Your task to perform on an android device: toggle translation in the chrome app Image 0: 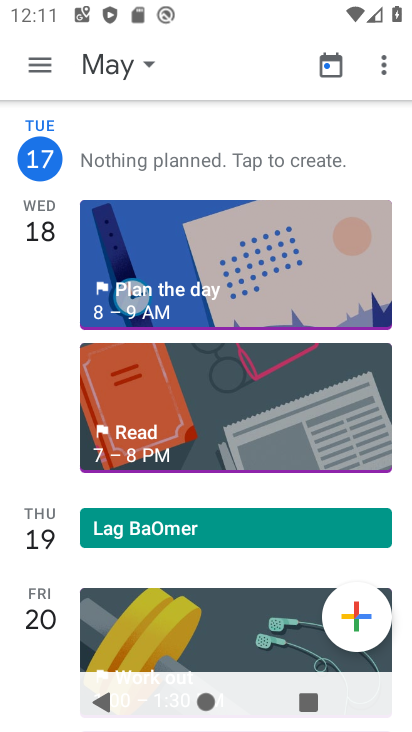
Step 0: press home button
Your task to perform on an android device: toggle translation in the chrome app Image 1: 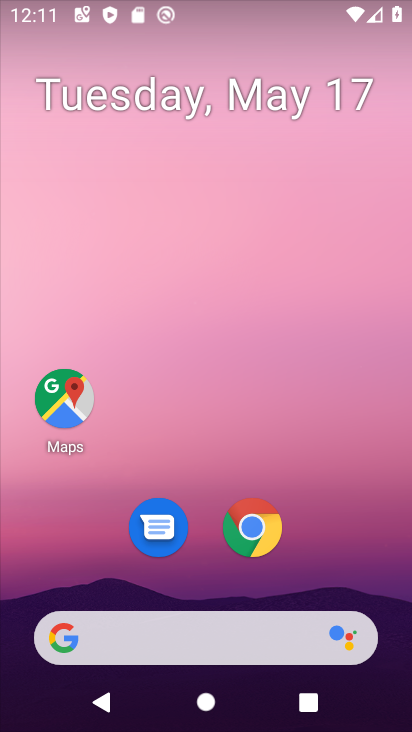
Step 1: drag from (379, 564) to (292, 172)
Your task to perform on an android device: toggle translation in the chrome app Image 2: 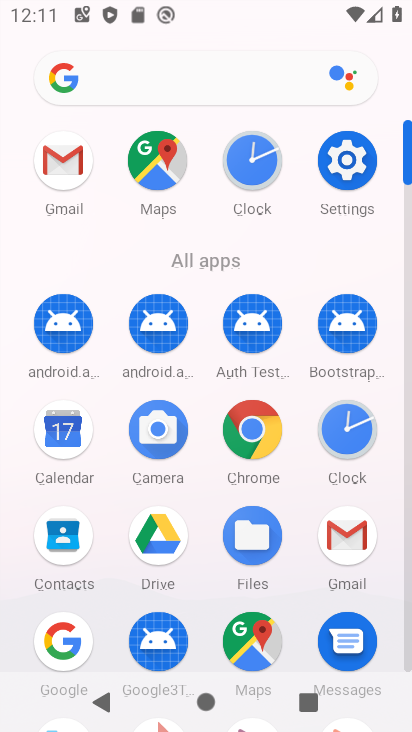
Step 2: click (265, 437)
Your task to perform on an android device: toggle translation in the chrome app Image 3: 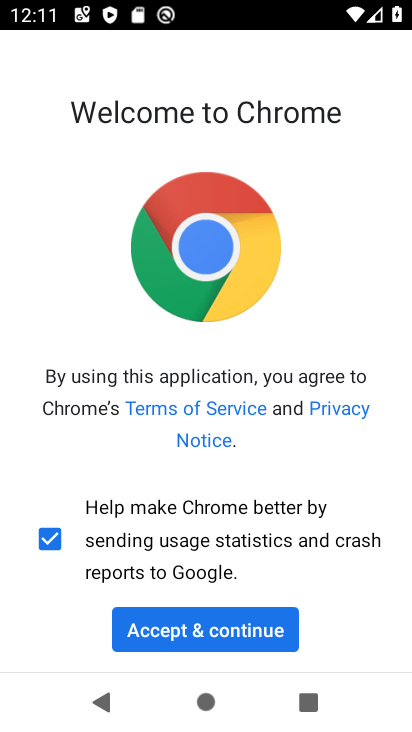
Step 3: click (182, 637)
Your task to perform on an android device: toggle translation in the chrome app Image 4: 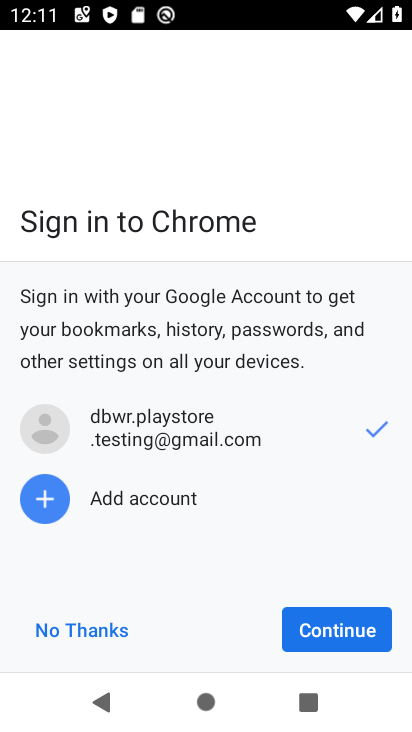
Step 4: click (344, 645)
Your task to perform on an android device: toggle translation in the chrome app Image 5: 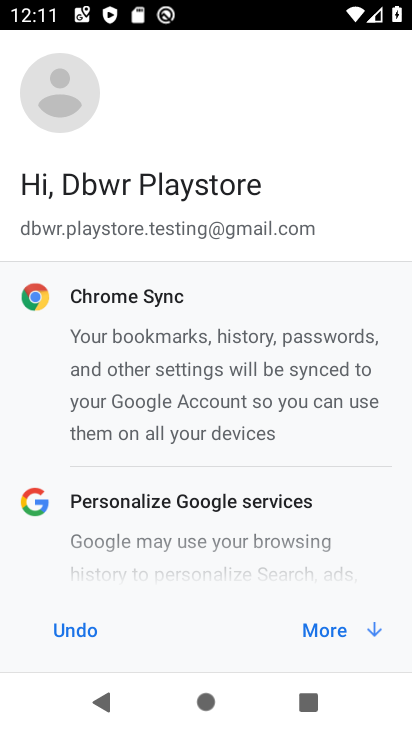
Step 5: click (343, 645)
Your task to perform on an android device: toggle translation in the chrome app Image 6: 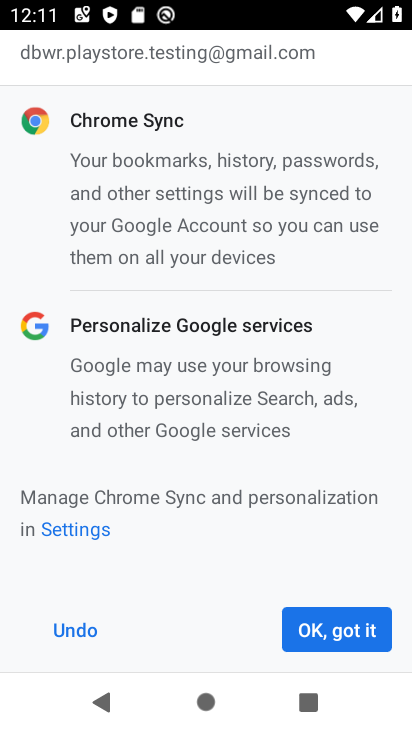
Step 6: click (342, 644)
Your task to perform on an android device: toggle translation in the chrome app Image 7: 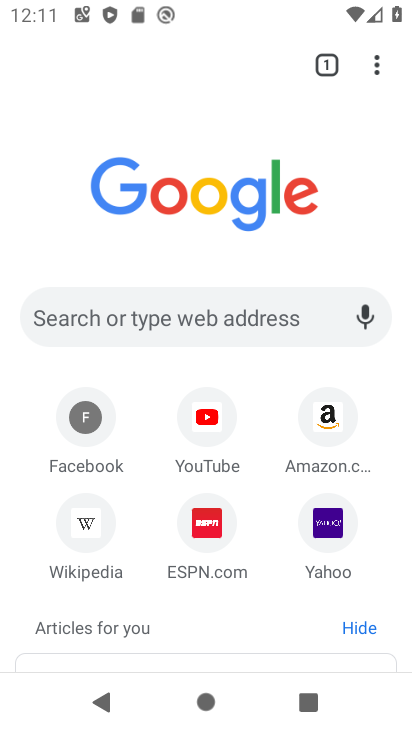
Step 7: drag from (374, 73) to (222, 560)
Your task to perform on an android device: toggle translation in the chrome app Image 8: 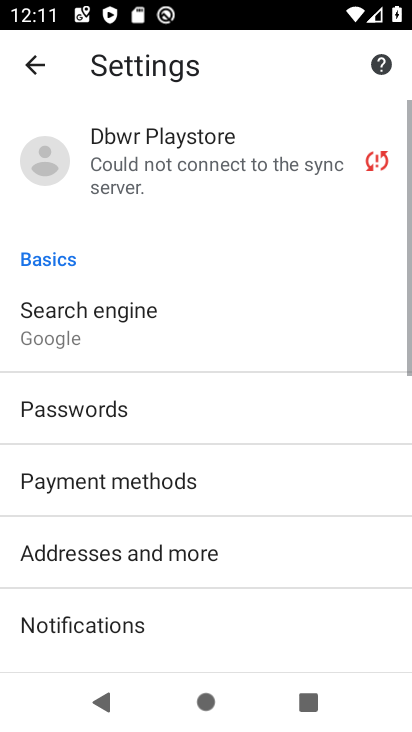
Step 8: drag from (243, 624) to (268, 322)
Your task to perform on an android device: toggle translation in the chrome app Image 9: 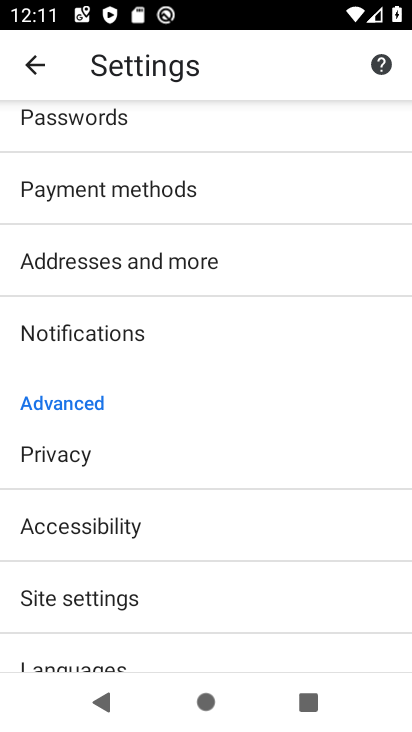
Step 9: drag from (160, 636) to (234, 387)
Your task to perform on an android device: toggle translation in the chrome app Image 10: 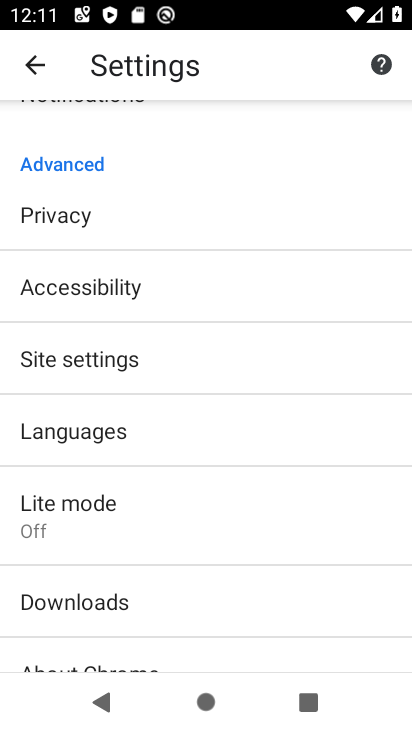
Step 10: click (203, 431)
Your task to perform on an android device: toggle translation in the chrome app Image 11: 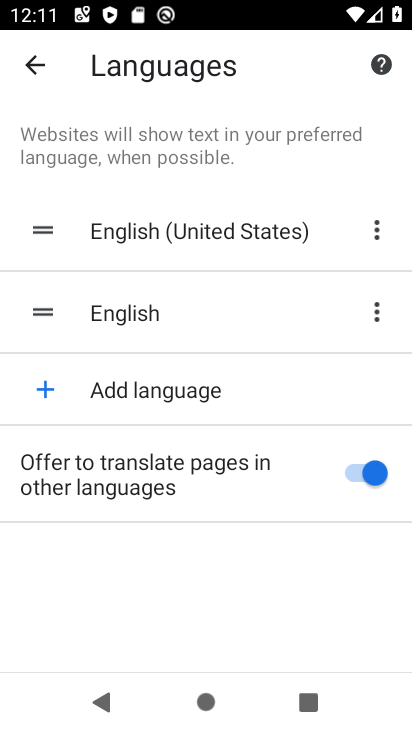
Step 11: click (361, 478)
Your task to perform on an android device: toggle translation in the chrome app Image 12: 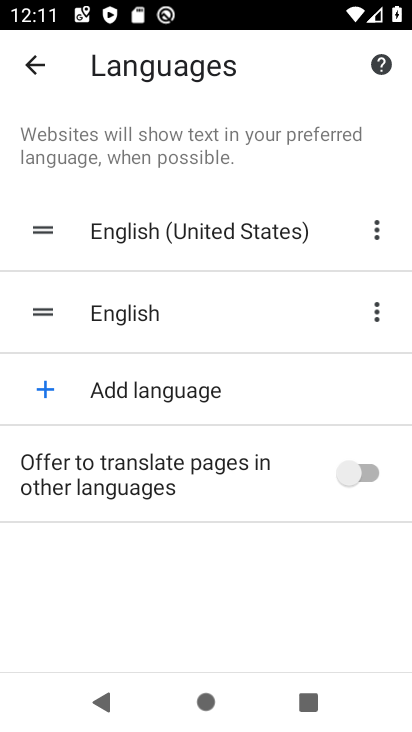
Step 12: task complete